Your task to perform on an android device: turn on priority inbox in the gmail app Image 0: 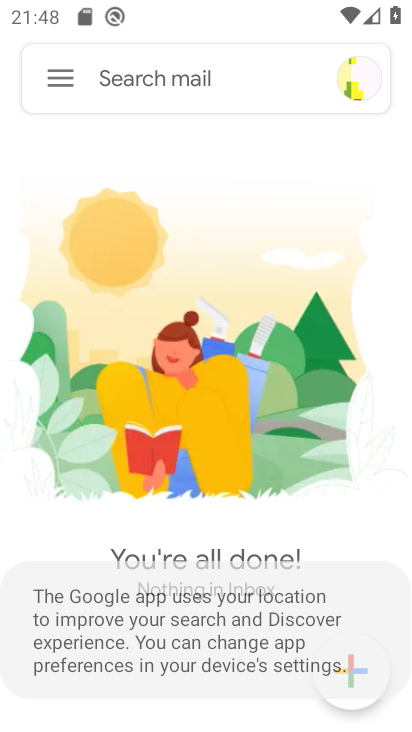
Step 0: press home button
Your task to perform on an android device: turn on priority inbox in the gmail app Image 1: 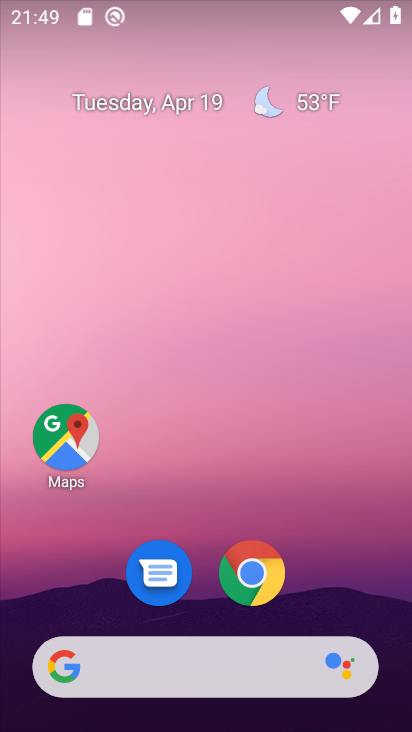
Step 1: drag from (217, 608) to (217, 77)
Your task to perform on an android device: turn on priority inbox in the gmail app Image 2: 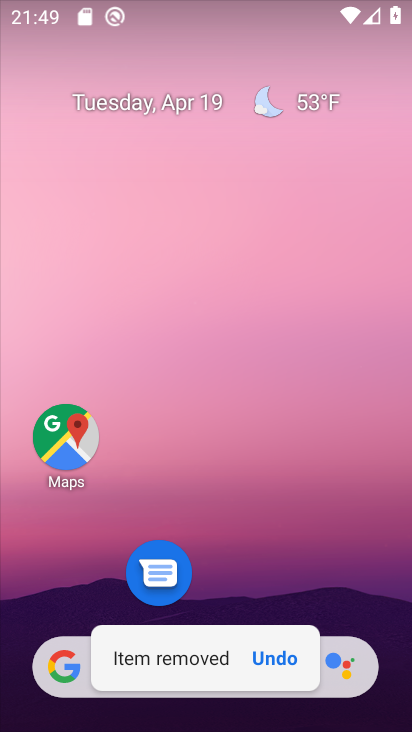
Step 2: click (287, 650)
Your task to perform on an android device: turn on priority inbox in the gmail app Image 3: 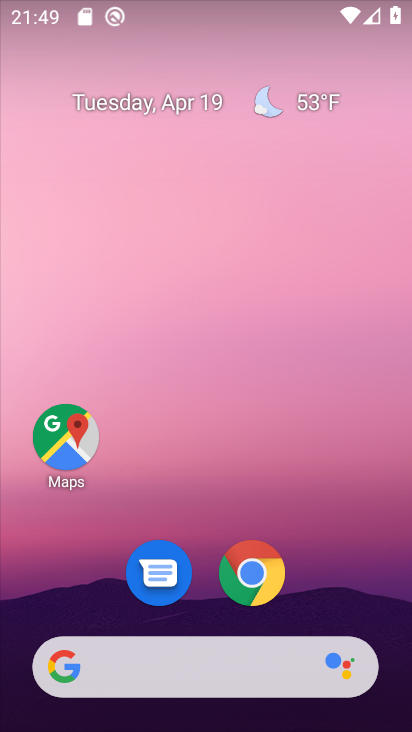
Step 3: drag from (323, 578) to (346, 78)
Your task to perform on an android device: turn on priority inbox in the gmail app Image 4: 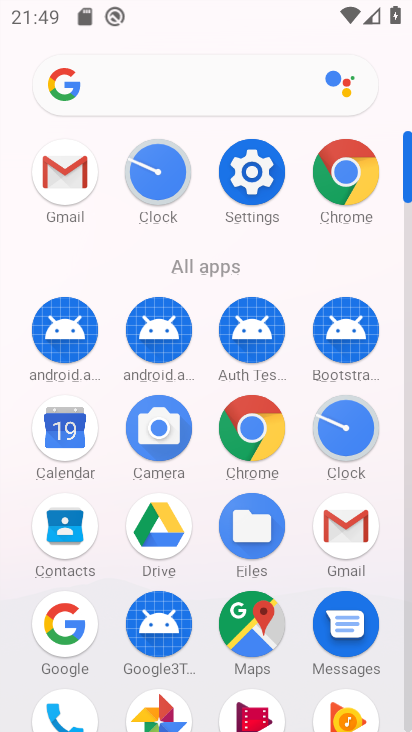
Step 4: click (344, 521)
Your task to perform on an android device: turn on priority inbox in the gmail app Image 5: 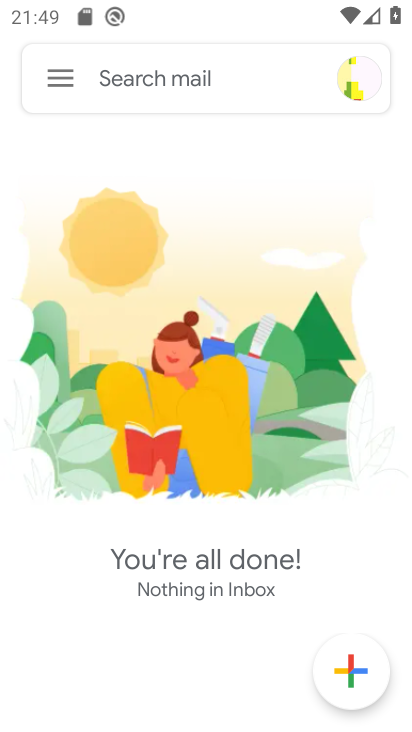
Step 5: click (61, 69)
Your task to perform on an android device: turn on priority inbox in the gmail app Image 6: 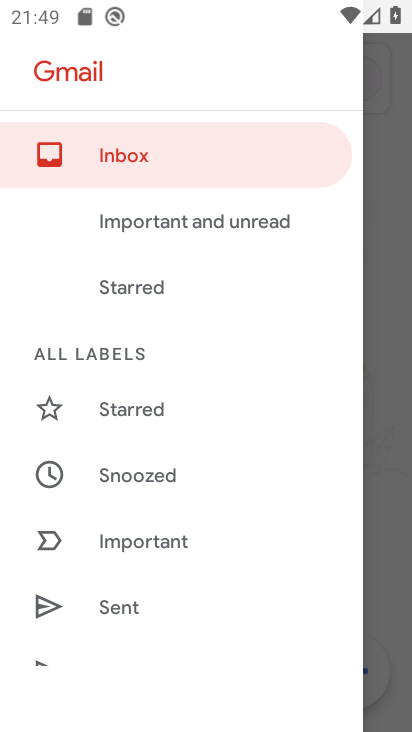
Step 6: drag from (185, 581) to (229, 209)
Your task to perform on an android device: turn on priority inbox in the gmail app Image 7: 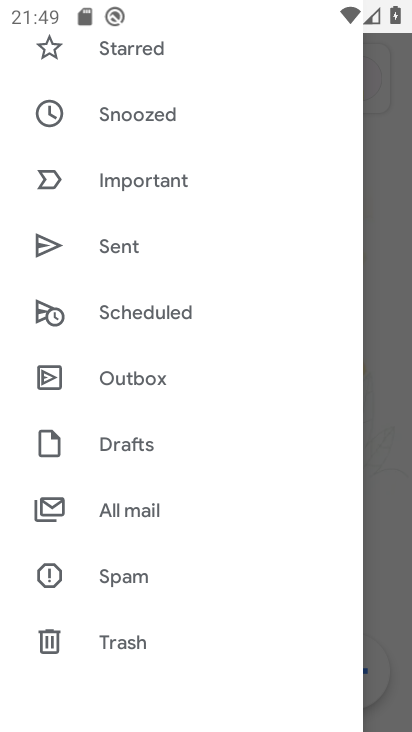
Step 7: drag from (179, 622) to (244, 149)
Your task to perform on an android device: turn on priority inbox in the gmail app Image 8: 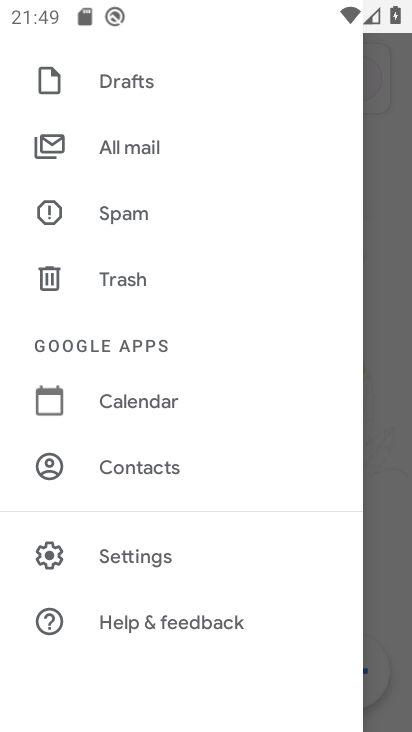
Step 8: click (181, 550)
Your task to perform on an android device: turn on priority inbox in the gmail app Image 9: 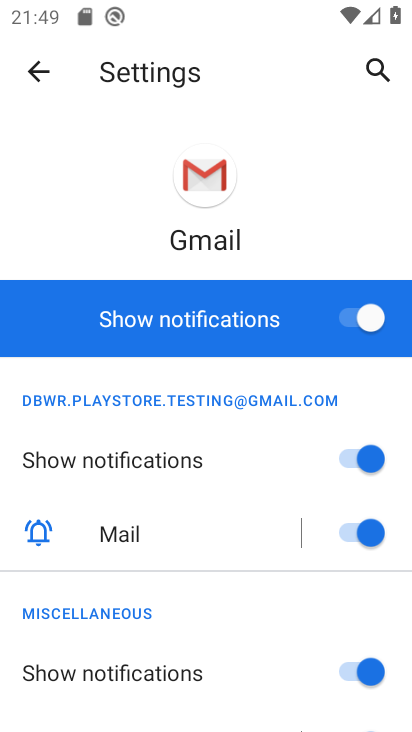
Step 9: click (41, 75)
Your task to perform on an android device: turn on priority inbox in the gmail app Image 10: 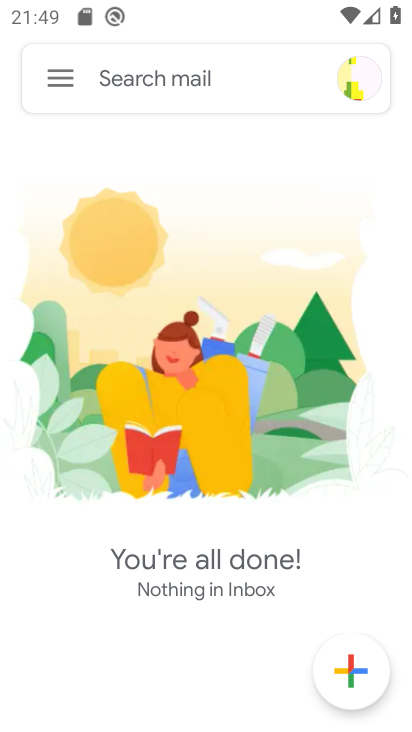
Step 10: click (56, 79)
Your task to perform on an android device: turn on priority inbox in the gmail app Image 11: 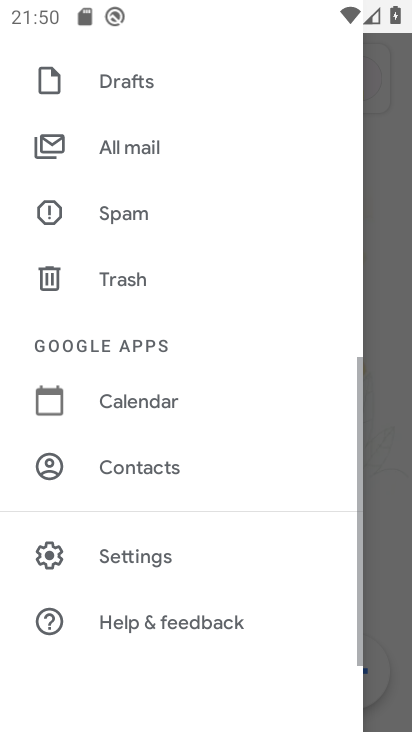
Step 11: click (147, 546)
Your task to perform on an android device: turn on priority inbox in the gmail app Image 12: 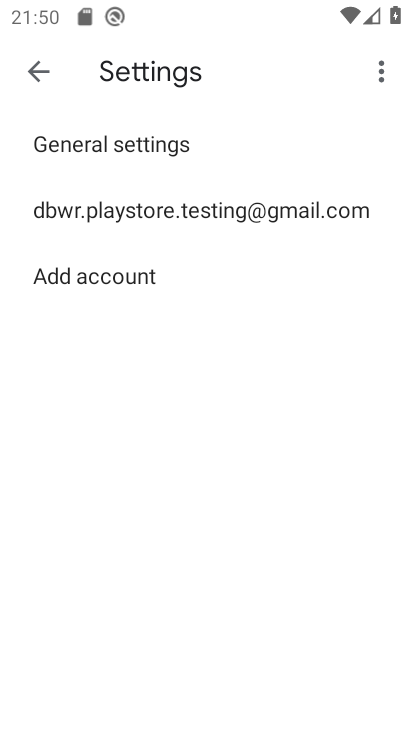
Step 12: click (218, 207)
Your task to perform on an android device: turn on priority inbox in the gmail app Image 13: 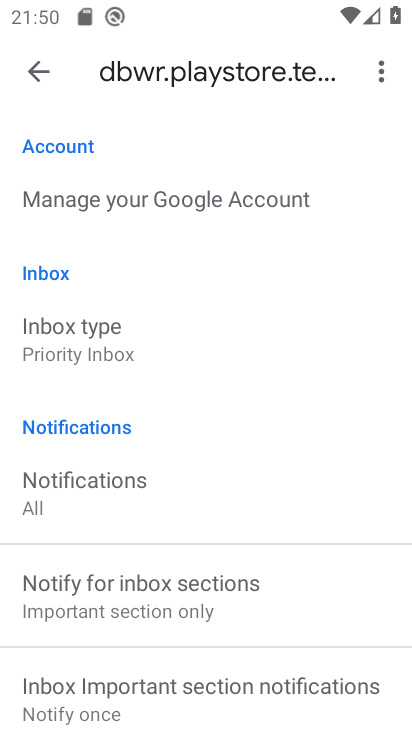
Step 13: click (139, 343)
Your task to perform on an android device: turn on priority inbox in the gmail app Image 14: 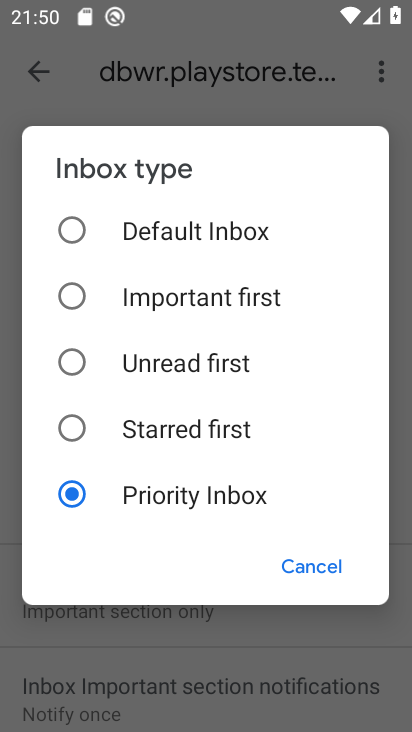
Step 14: click (94, 490)
Your task to perform on an android device: turn on priority inbox in the gmail app Image 15: 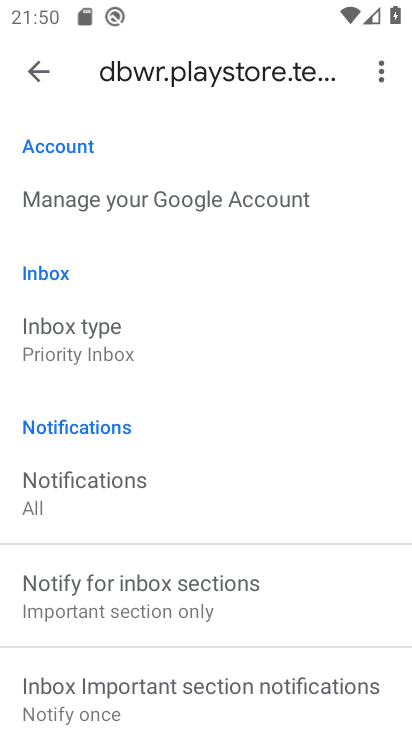
Step 15: task complete